Your task to perform on an android device: turn off location history Image 0: 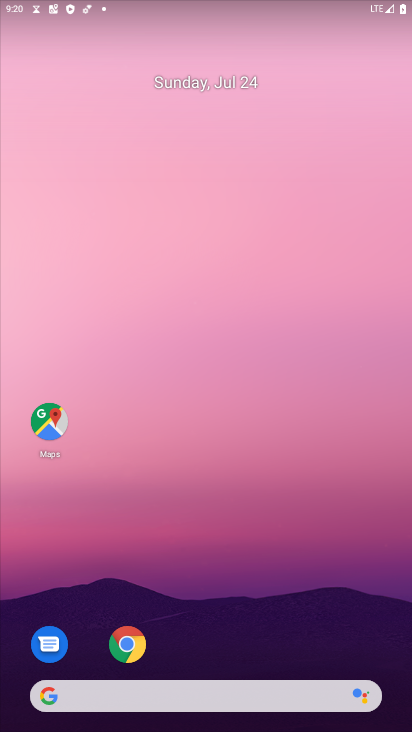
Step 0: drag from (273, 638) to (237, 229)
Your task to perform on an android device: turn off location history Image 1: 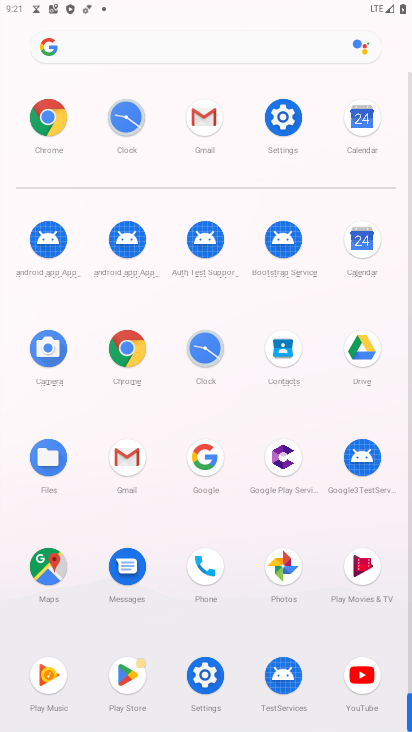
Step 1: click (37, 574)
Your task to perform on an android device: turn off location history Image 2: 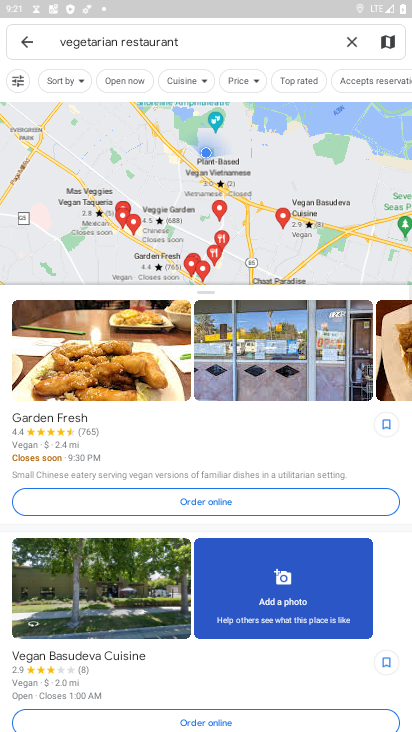
Step 2: click (16, 45)
Your task to perform on an android device: turn off location history Image 3: 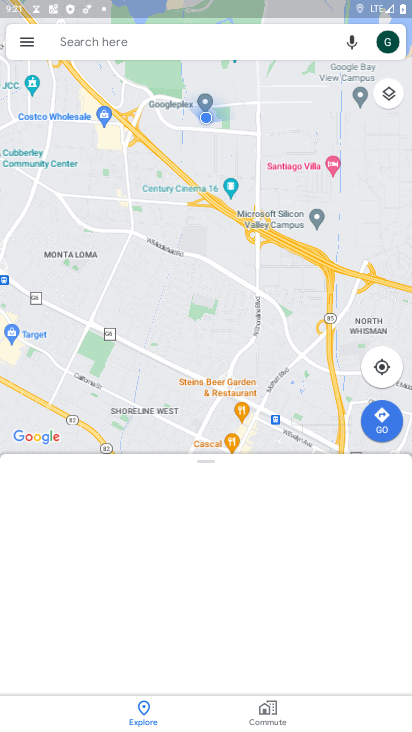
Step 3: click (29, 39)
Your task to perform on an android device: turn off location history Image 4: 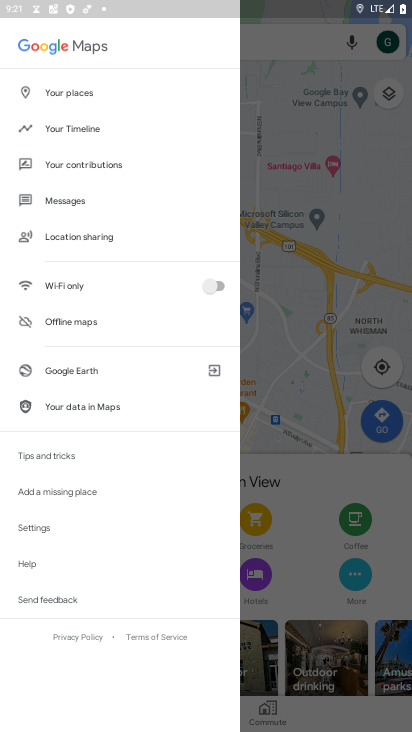
Step 4: click (71, 130)
Your task to perform on an android device: turn off location history Image 5: 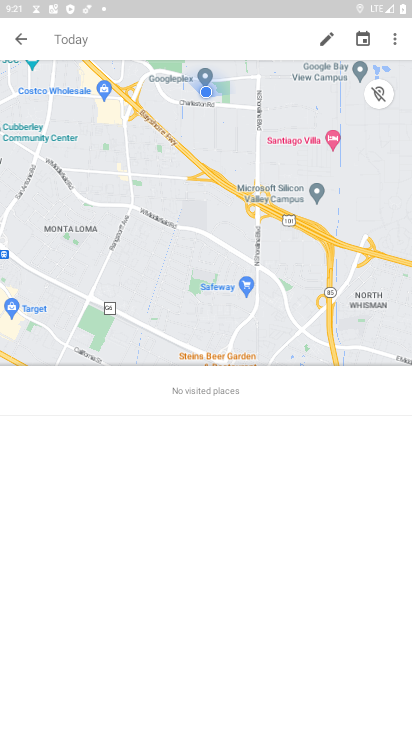
Step 5: click (395, 38)
Your task to perform on an android device: turn off location history Image 6: 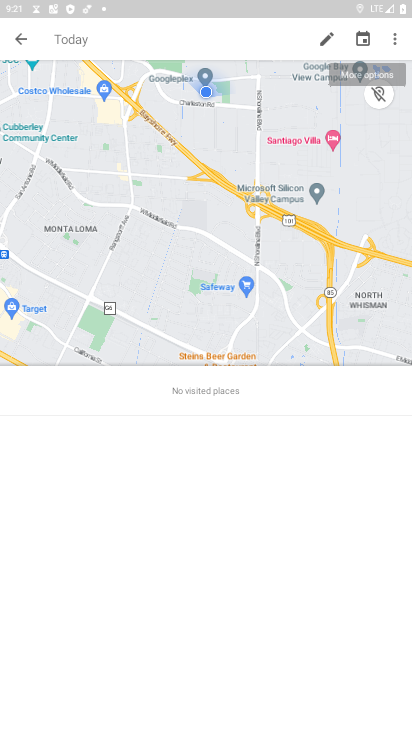
Step 6: click (395, 38)
Your task to perform on an android device: turn off location history Image 7: 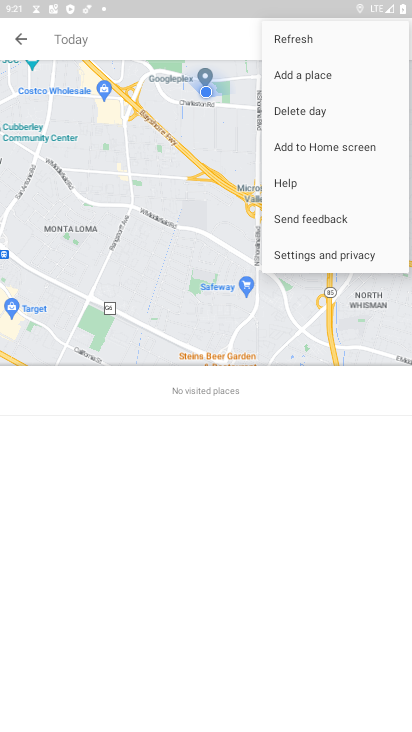
Step 7: click (334, 247)
Your task to perform on an android device: turn off location history Image 8: 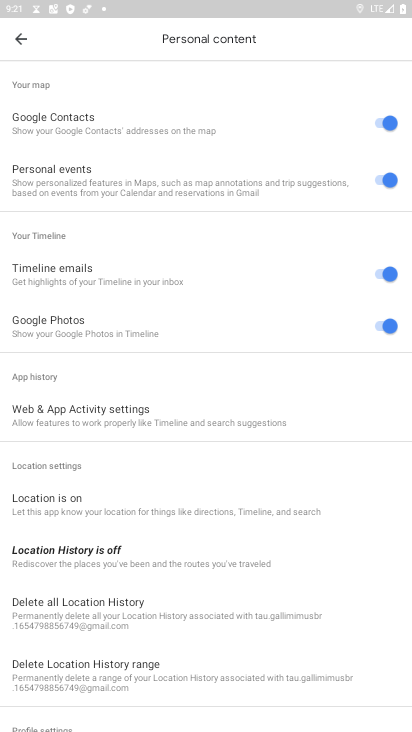
Step 8: drag from (89, 606) to (407, 466)
Your task to perform on an android device: turn off location history Image 9: 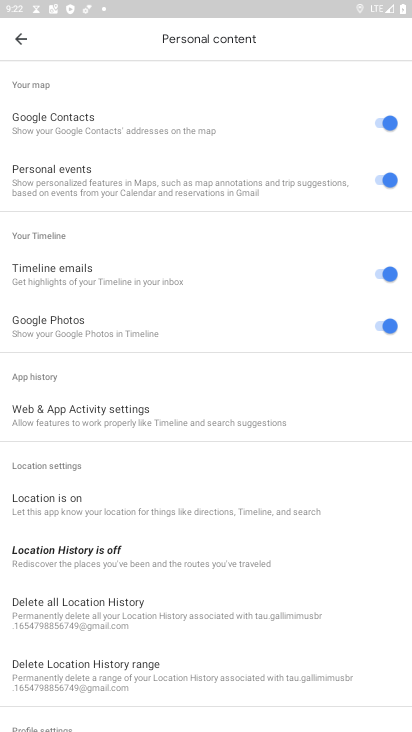
Step 9: click (65, 556)
Your task to perform on an android device: turn off location history Image 10: 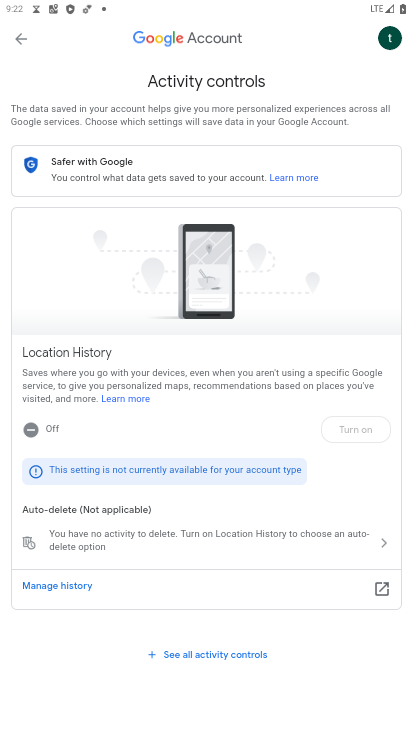
Step 10: task complete